Your task to perform on an android device: change the clock display to show seconds Image 0: 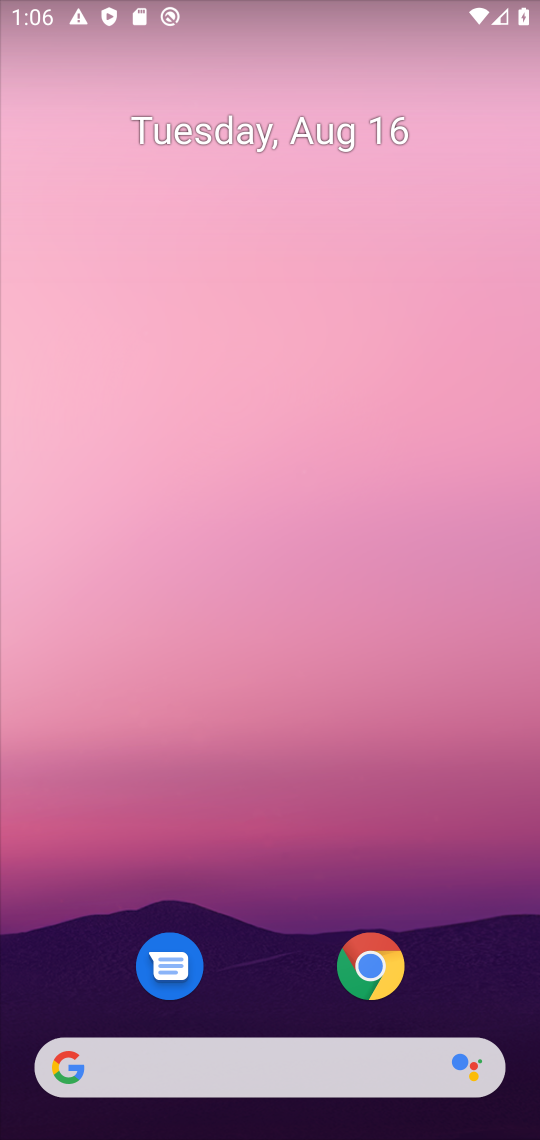
Step 0: drag from (277, 945) to (232, 220)
Your task to perform on an android device: change the clock display to show seconds Image 1: 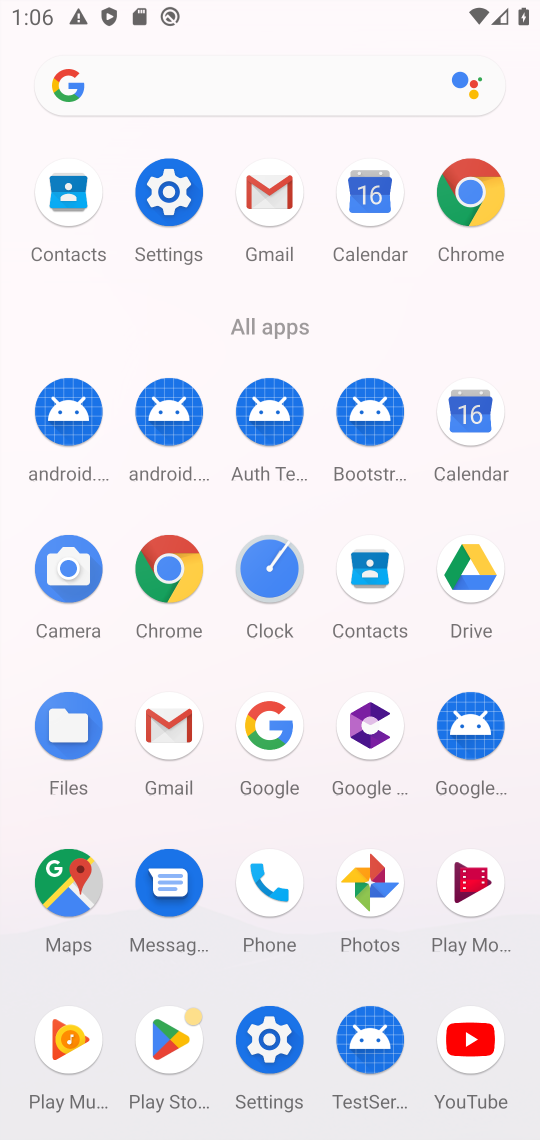
Step 1: click (254, 578)
Your task to perform on an android device: change the clock display to show seconds Image 2: 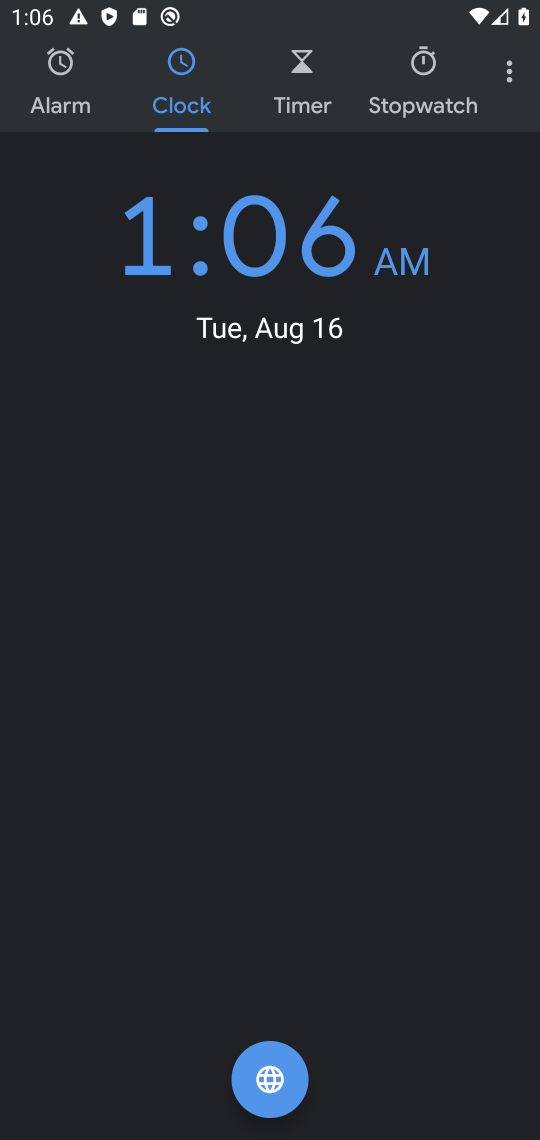
Step 2: click (512, 65)
Your task to perform on an android device: change the clock display to show seconds Image 3: 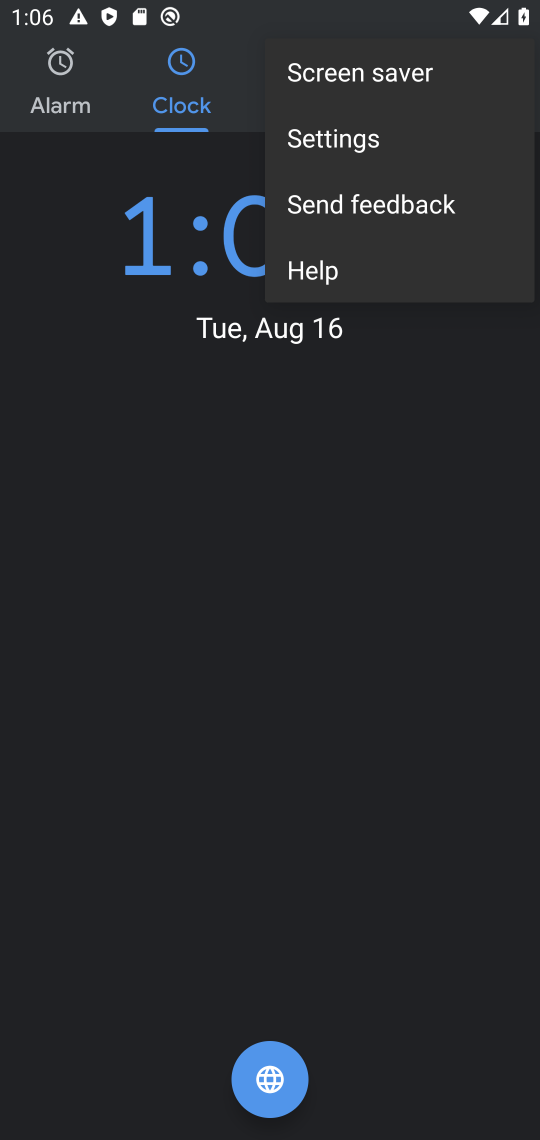
Step 3: click (327, 130)
Your task to perform on an android device: change the clock display to show seconds Image 4: 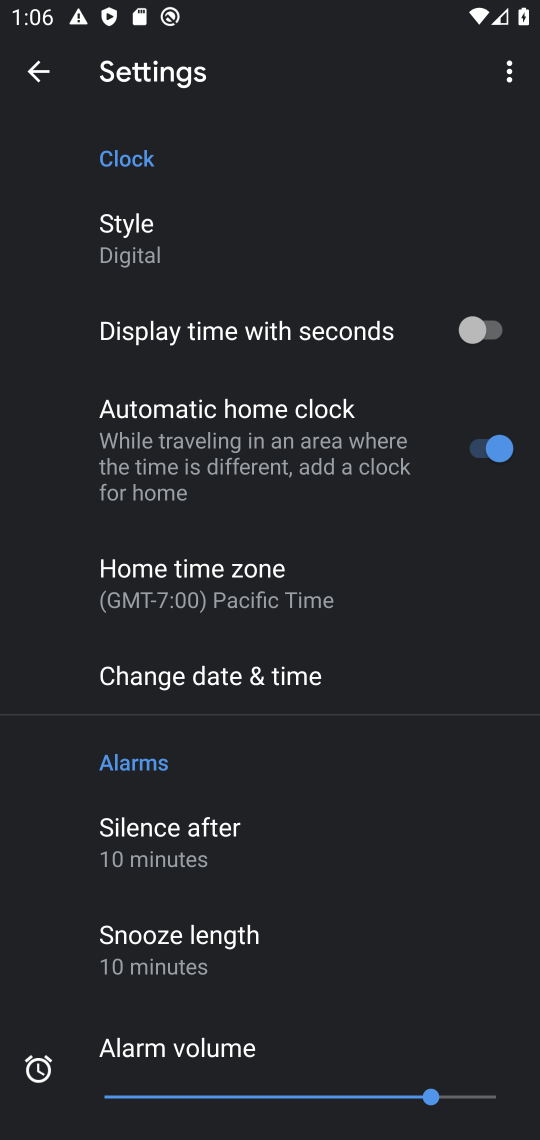
Step 4: click (479, 341)
Your task to perform on an android device: change the clock display to show seconds Image 5: 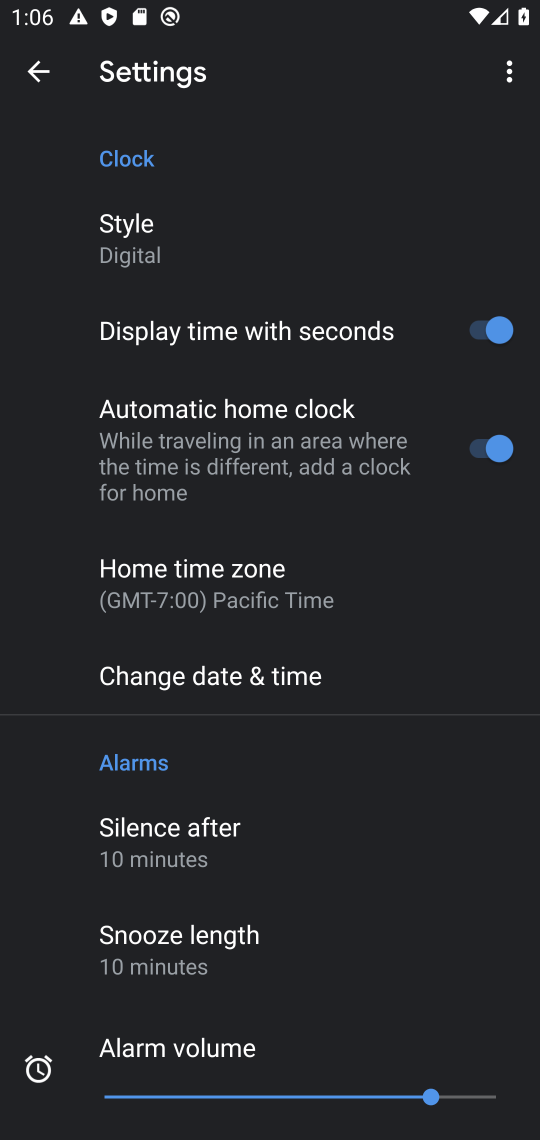
Step 5: task complete